Your task to perform on an android device: see creations saved in the google photos Image 0: 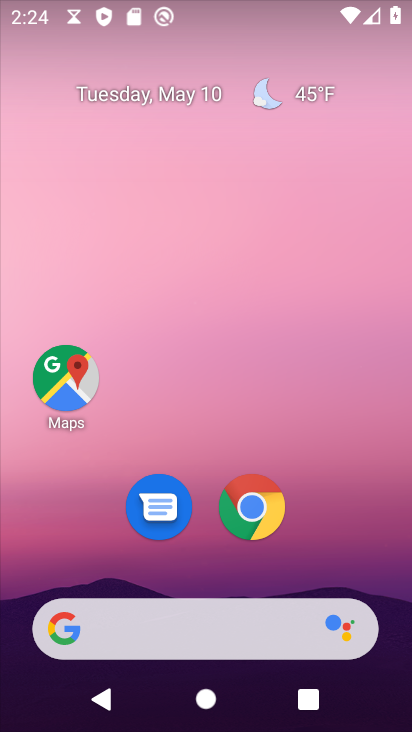
Step 0: drag from (332, 508) to (158, 195)
Your task to perform on an android device: see creations saved in the google photos Image 1: 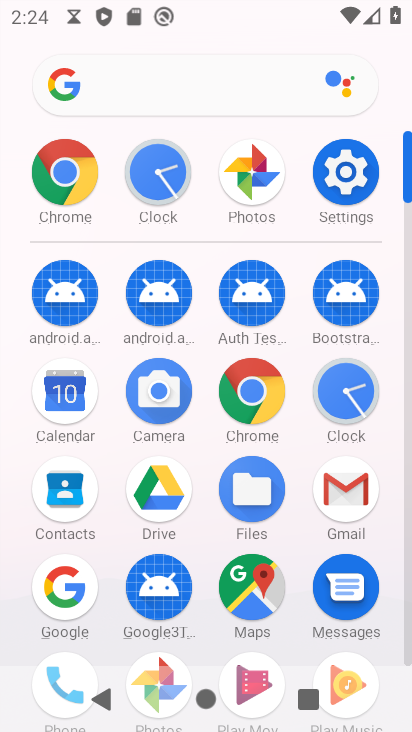
Step 1: click (250, 182)
Your task to perform on an android device: see creations saved in the google photos Image 2: 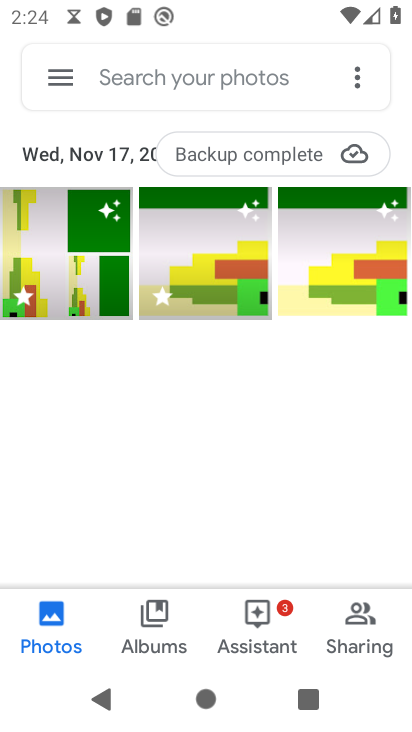
Step 2: click (65, 77)
Your task to perform on an android device: see creations saved in the google photos Image 3: 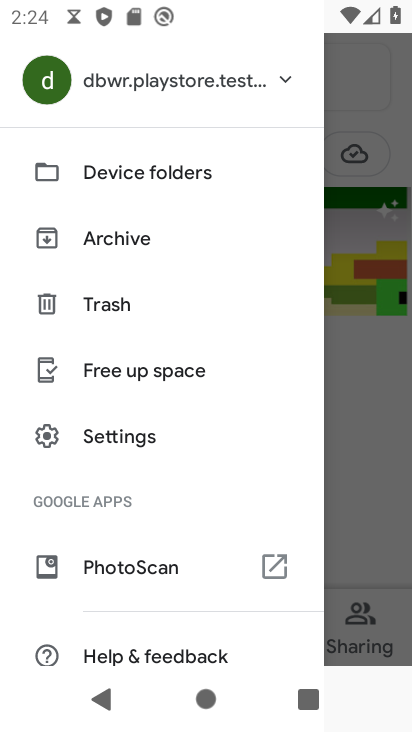
Step 3: click (348, 440)
Your task to perform on an android device: see creations saved in the google photos Image 4: 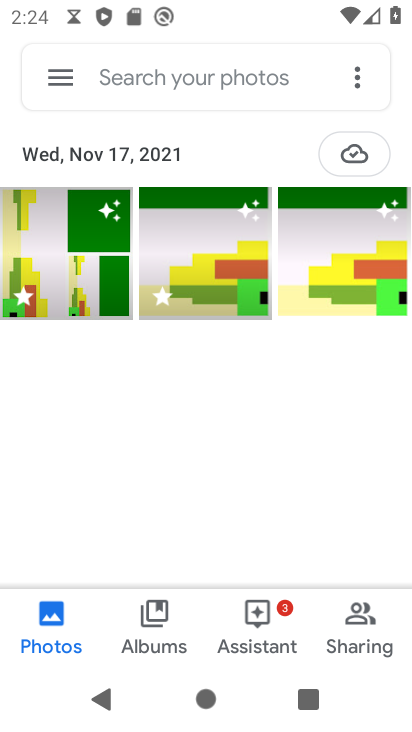
Step 4: click (353, 71)
Your task to perform on an android device: see creations saved in the google photos Image 5: 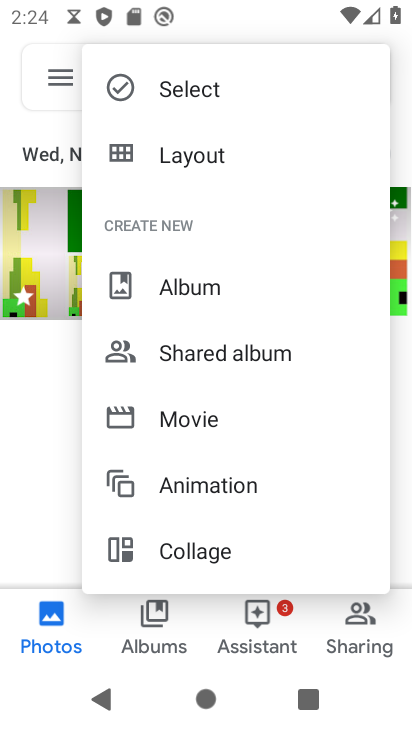
Step 5: drag from (215, 504) to (51, 518)
Your task to perform on an android device: see creations saved in the google photos Image 6: 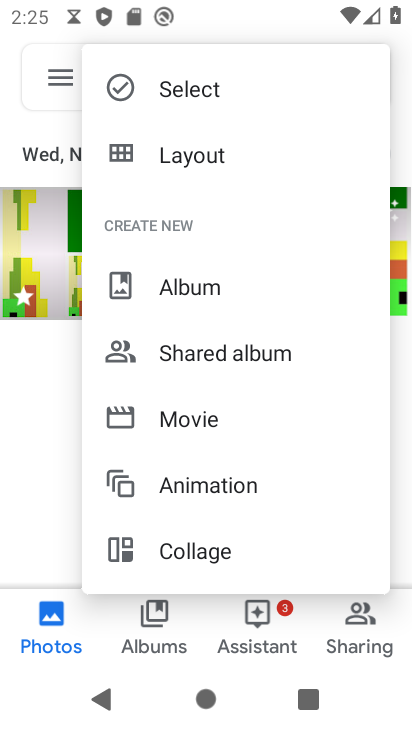
Step 6: click (51, 518)
Your task to perform on an android device: see creations saved in the google photos Image 7: 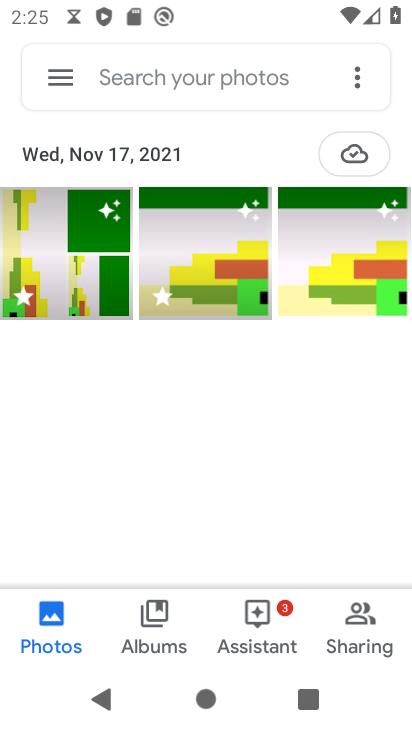
Step 7: click (206, 76)
Your task to perform on an android device: see creations saved in the google photos Image 8: 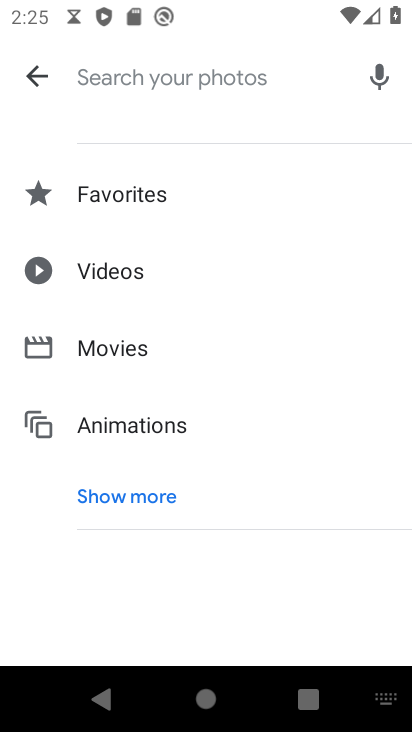
Step 8: click (122, 498)
Your task to perform on an android device: see creations saved in the google photos Image 9: 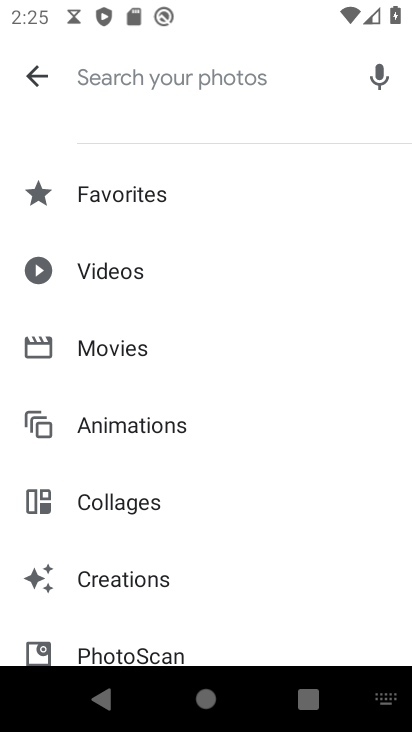
Step 9: click (145, 583)
Your task to perform on an android device: see creations saved in the google photos Image 10: 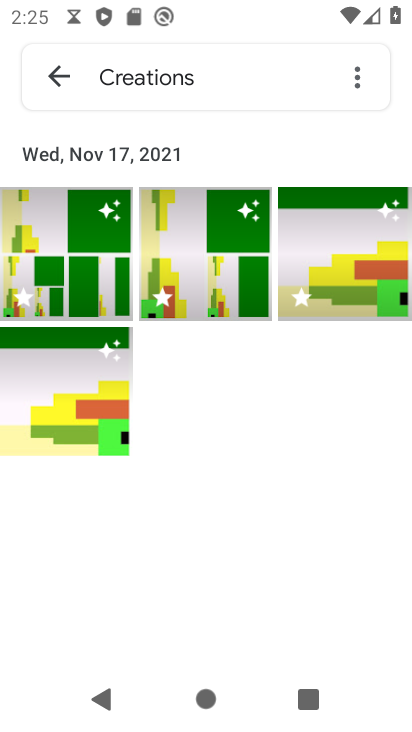
Step 10: task complete